Your task to perform on an android device: Go to calendar. Show me events next week Image 0: 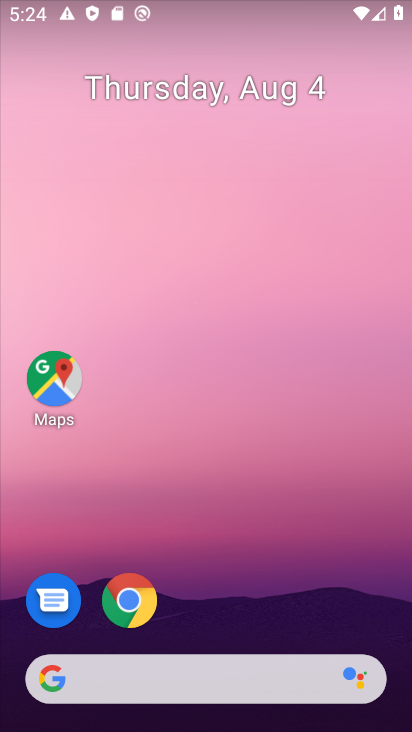
Step 0: drag from (237, 621) to (322, 72)
Your task to perform on an android device: Go to calendar. Show me events next week Image 1: 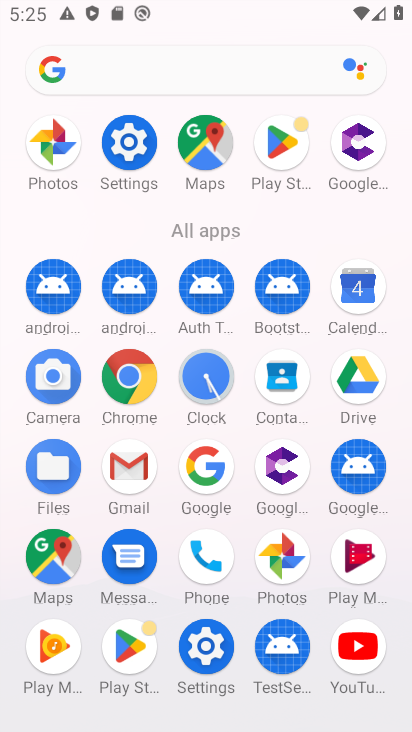
Step 1: click (352, 305)
Your task to perform on an android device: Go to calendar. Show me events next week Image 2: 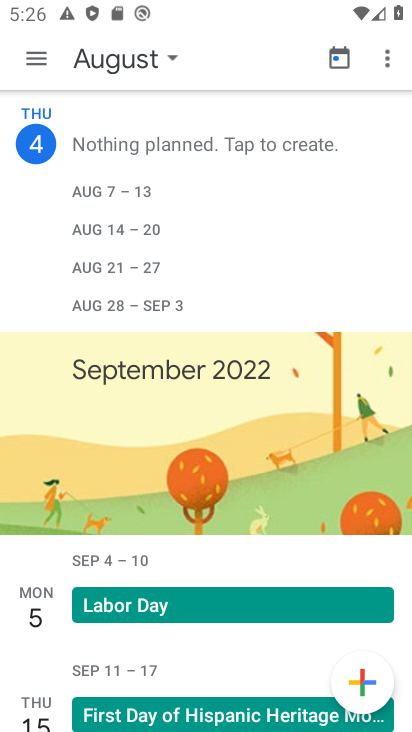
Step 2: click (102, 57)
Your task to perform on an android device: Go to calendar. Show me events next week Image 3: 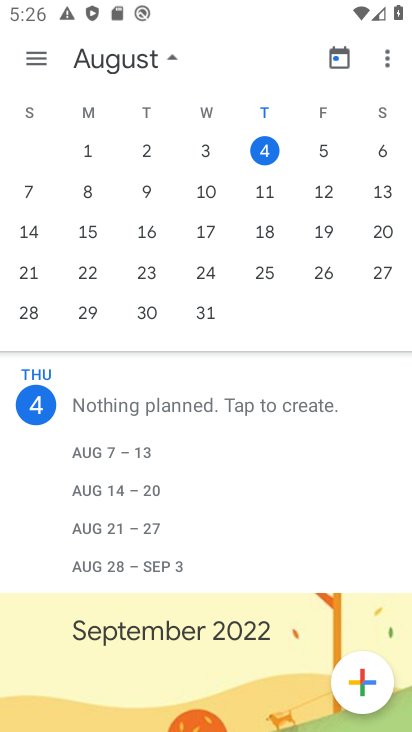
Step 3: click (88, 188)
Your task to perform on an android device: Go to calendar. Show me events next week Image 4: 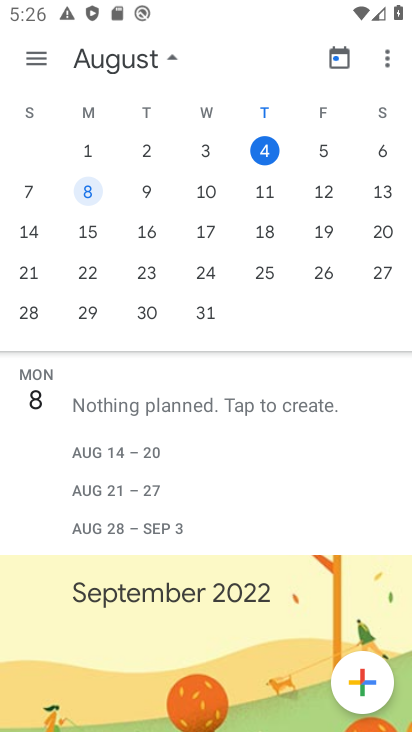
Step 4: task complete